Your task to perform on an android device: turn on wifi Image 0: 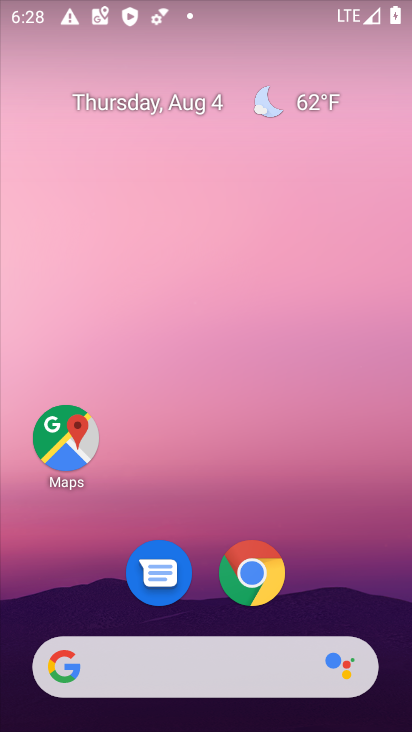
Step 0: press home button
Your task to perform on an android device: turn on wifi Image 1: 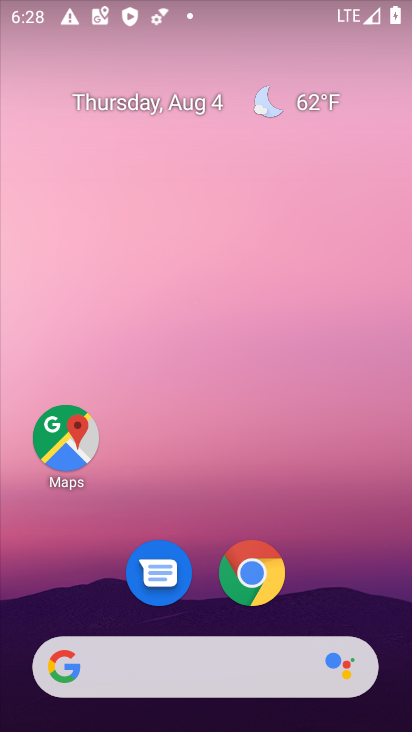
Step 1: drag from (208, 1) to (226, 482)
Your task to perform on an android device: turn on wifi Image 2: 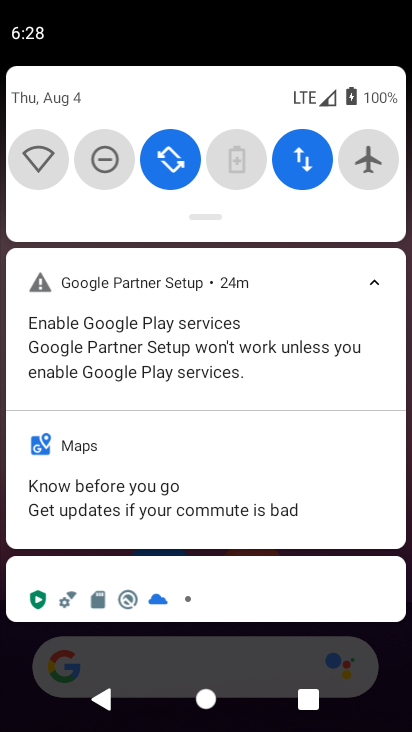
Step 2: click (30, 157)
Your task to perform on an android device: turn on wifi Image 3: 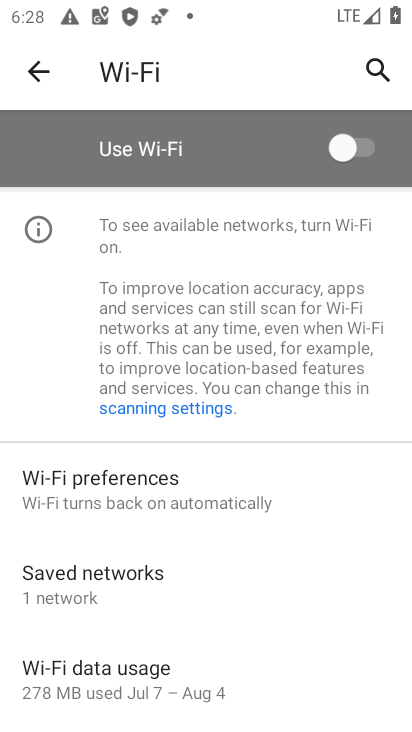
Step 3: click (342, 153)
Your task to perform on an android device: turn on wifi Image 4: 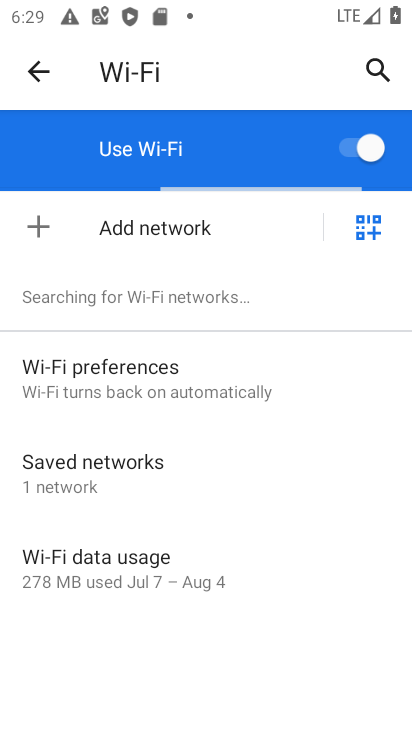
Step 4: task complete